Your task to perform on an android device: Do I have any events this weekend? Image 0: 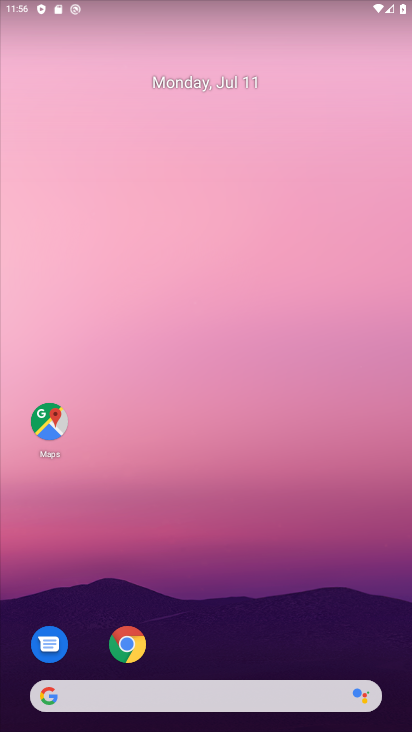
Step 0: drag from (147, 478) to (274, 16)
Your task to perform on an android device: Do I have any events this weekend? Image 1: 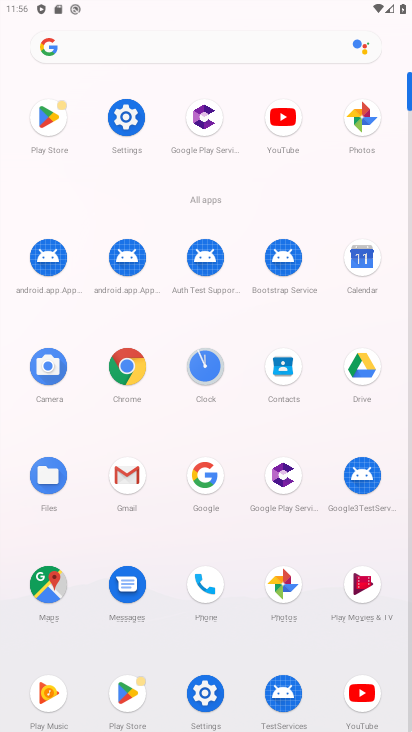
Step 1: click (371, 270)
Your task to perform on an android device: Do I have any events this weekend? Image 2: 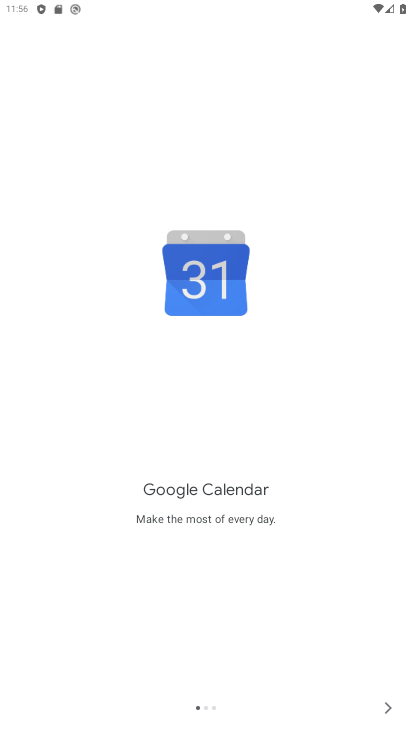
Step 2: click (388, 707)
Your task to perform on an android device: Do I have any events this weekend? Image 3: 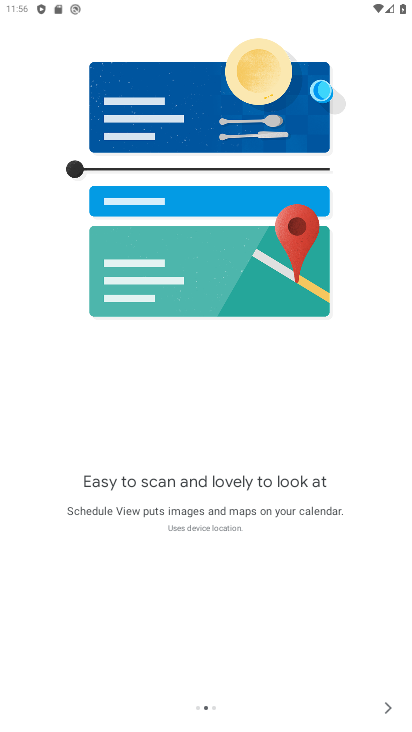
Step 3: click (380, 707)
Your task to perform on an android device: Do I have any events this weekend? Image 4: 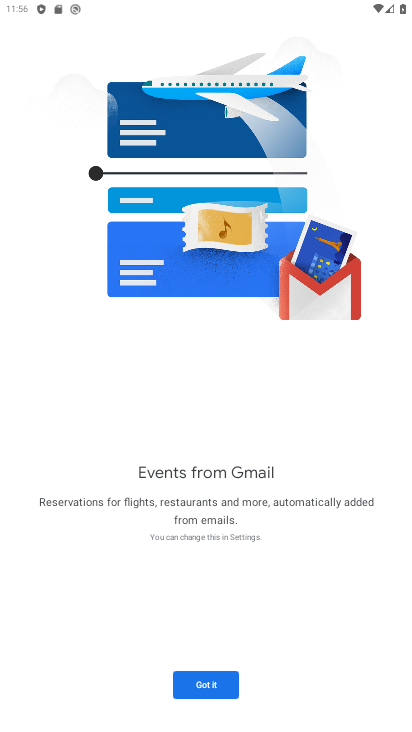
Step 4: click (195, 680)
Your task to perform on an android device: Do I have any events this weekend? Image 5: 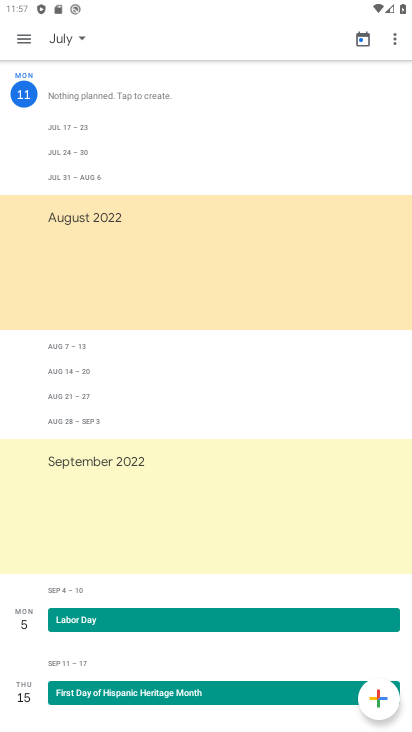
Step 5: click (87, 38)
Your task to perform on an android device: Do I have any events this weekend? Image 6: 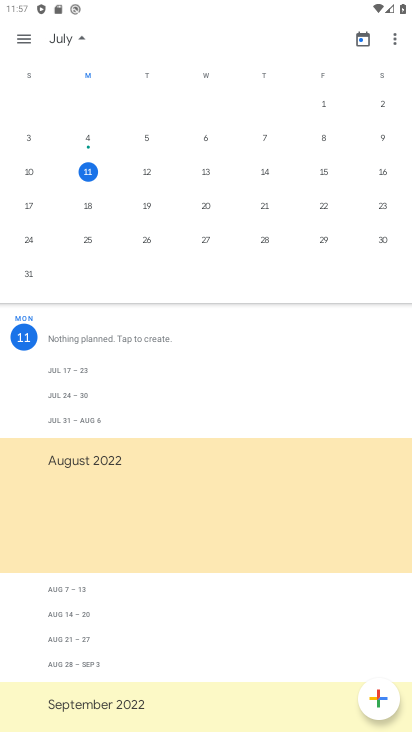
Step 6: task complete